Your task to perform on an android device: open sync settings in chrome Image 0: 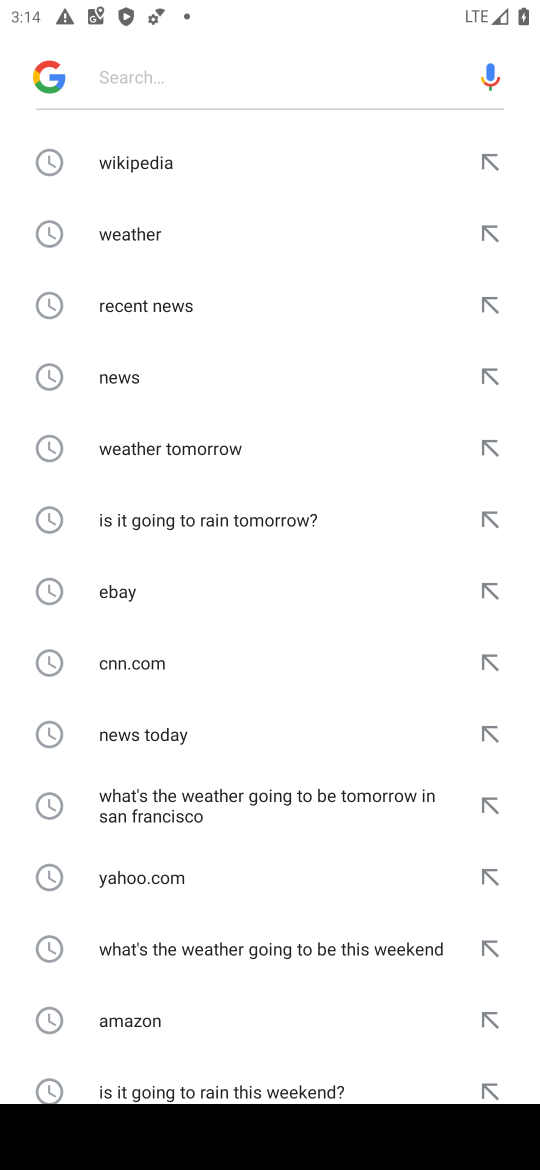
Step 0: press home button
Your task to perform on an android device: open sync settings in chrome Image 1: 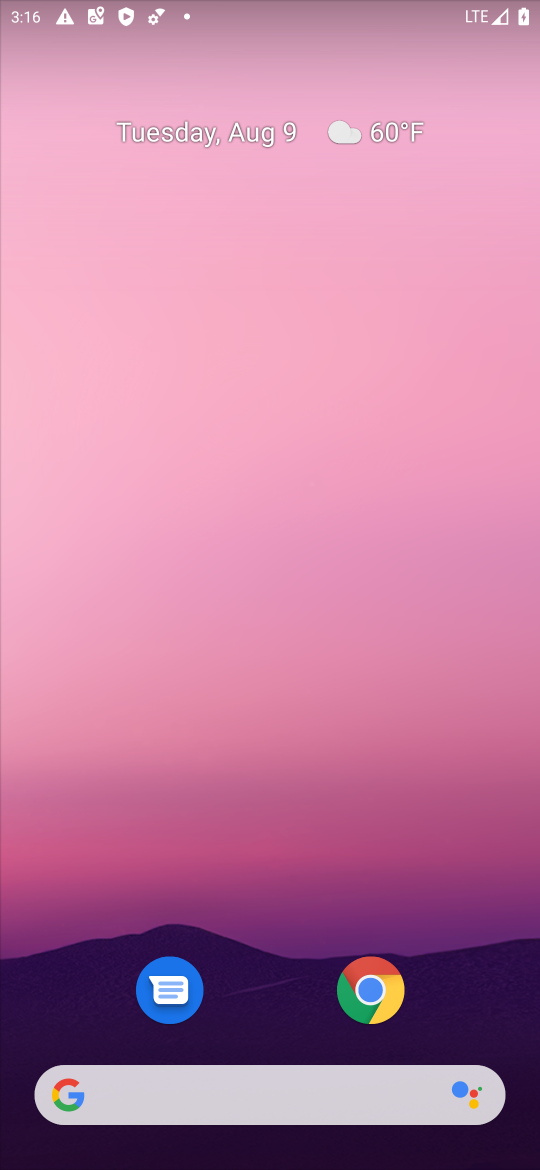
Step 1: drag from (272, 1092) to (272, 128)
Your task to perform on an android device: open sync settings in chrome Image 2: 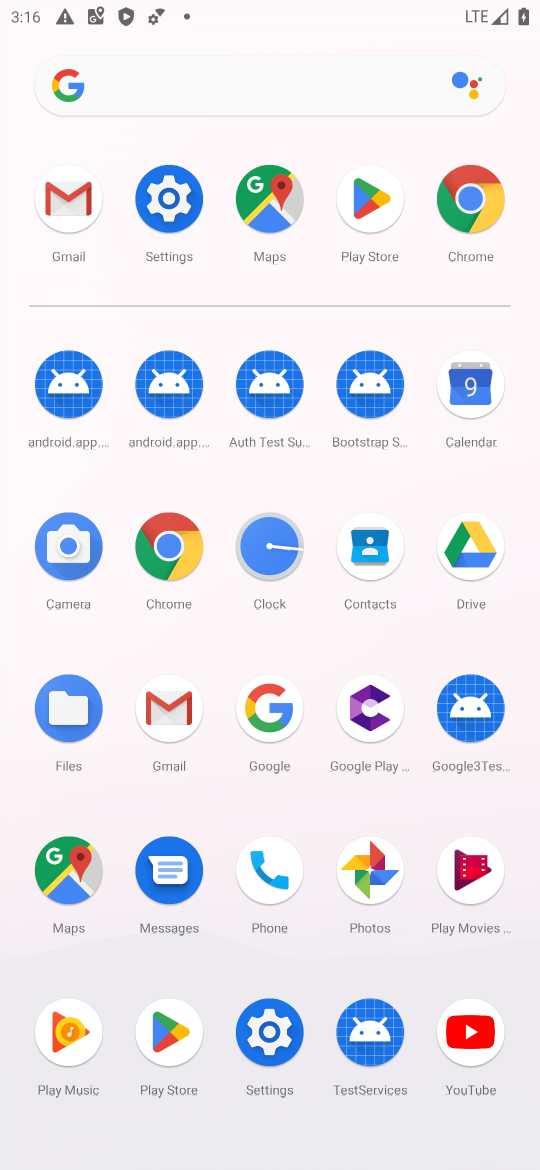
Step 2: click (171, 549)
Your task to perform on an android device: open sync settings in chrome Image 3: 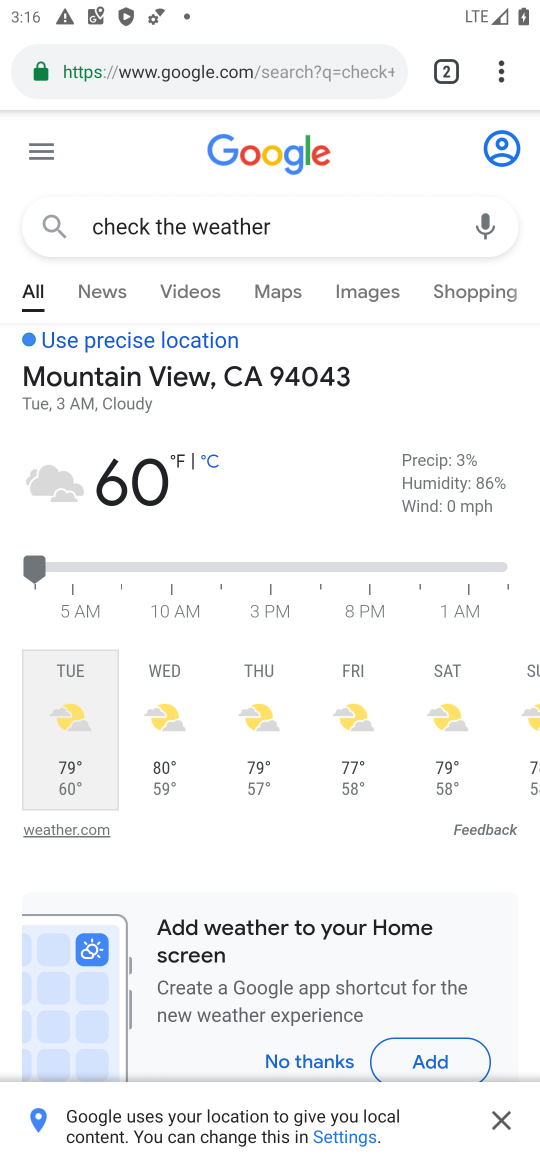
Step 3: click (497, 57)
Your task to perform on an android device: open sync settings in chrome Image 4: 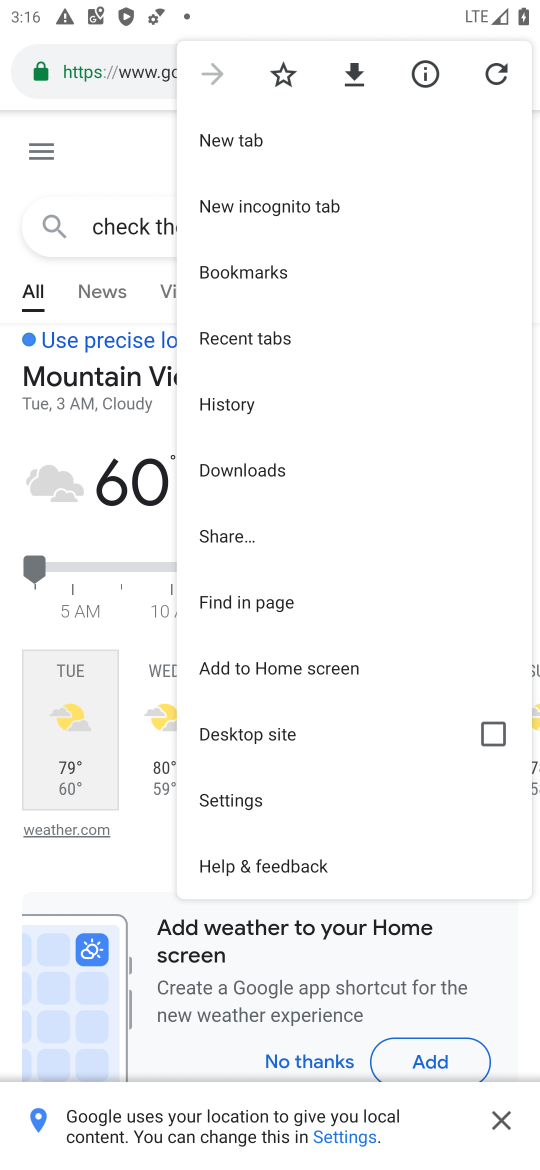
Step 4: click (237, 797)
Your task to perform on an android device: open sync settings in chrome Image 5: 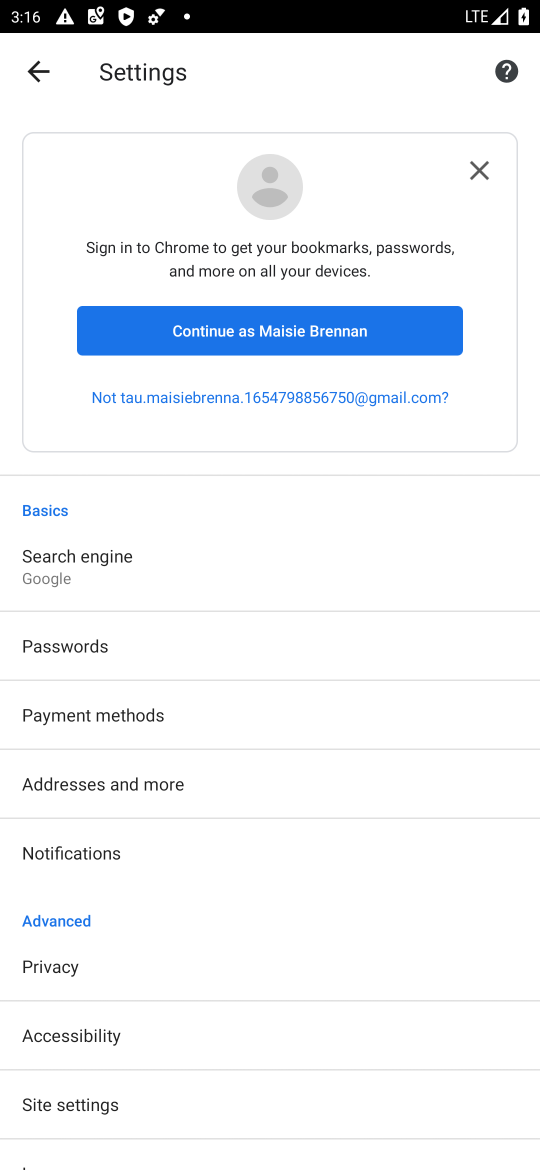
Step 5: drag from (166, 1103) to (226, 365)
Your task to perform on an android device: open sync settings in chrome Image 6: 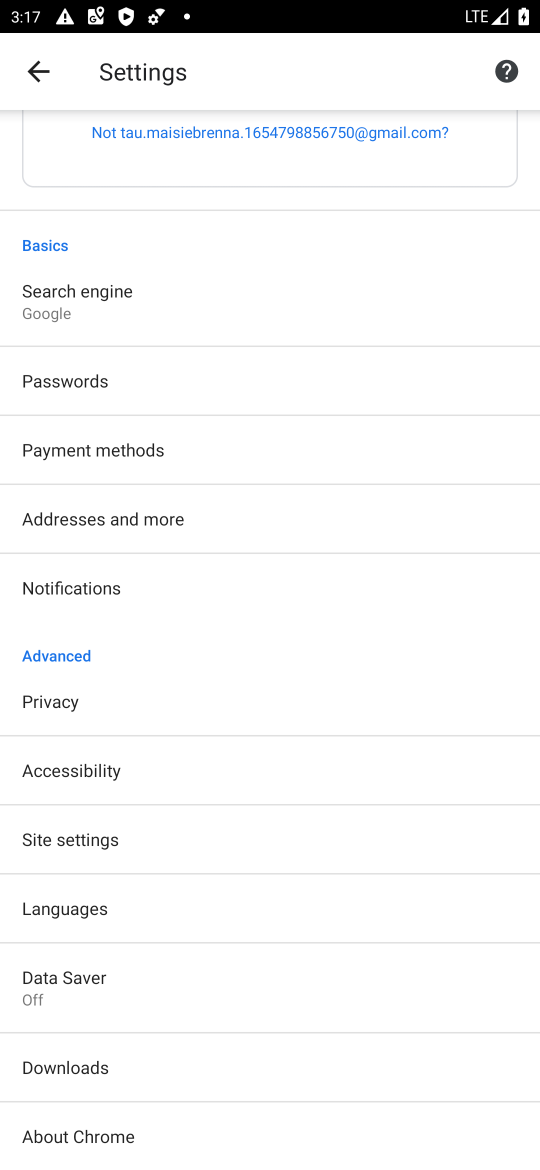
Step 6: click (109, 854)
Your task to perform on an android device: open sync settings in chrome Image 7: 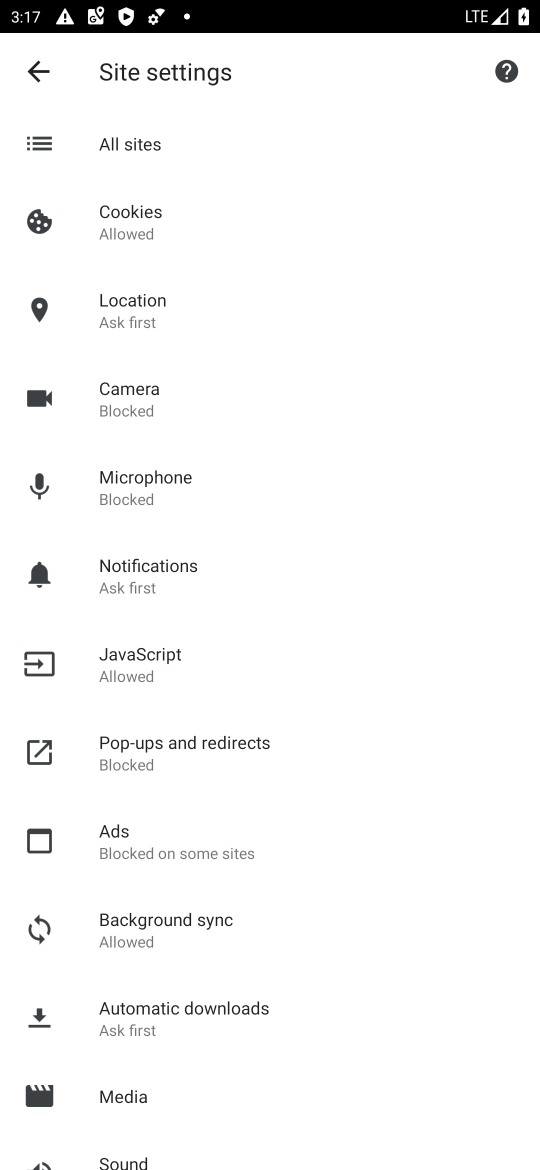
Step 7: click (227, 928)
Your task to perform on an android device: open sync settings in chrome Image 8: 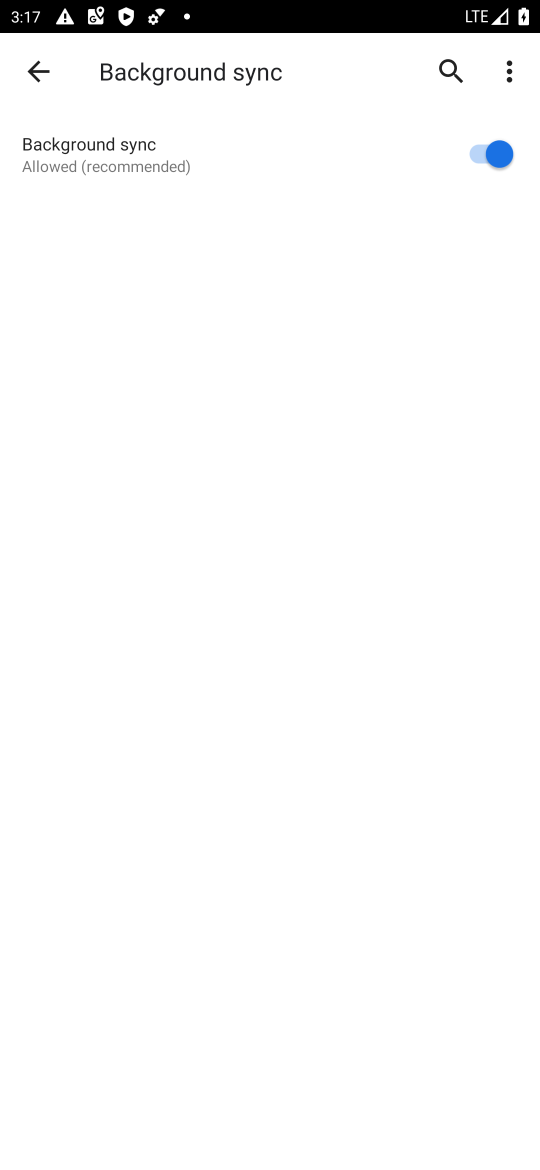
Step 8: task complete